Your task to perform on an android device: open a new tab in the chrome app Image 0: 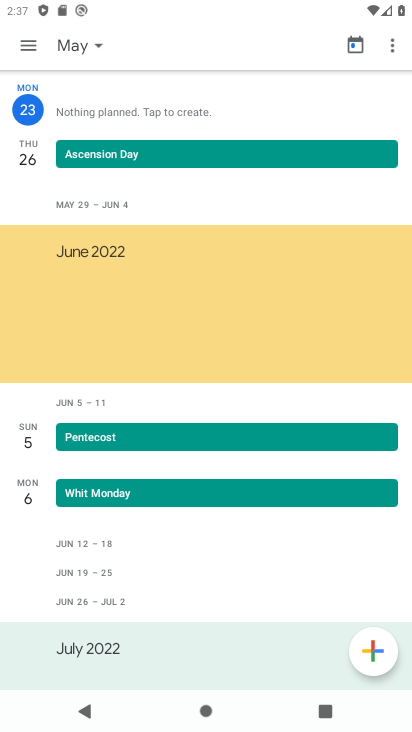
Step 0: press home button
Your task to perform on an android device: open a new tab in the chrome app Image 1: 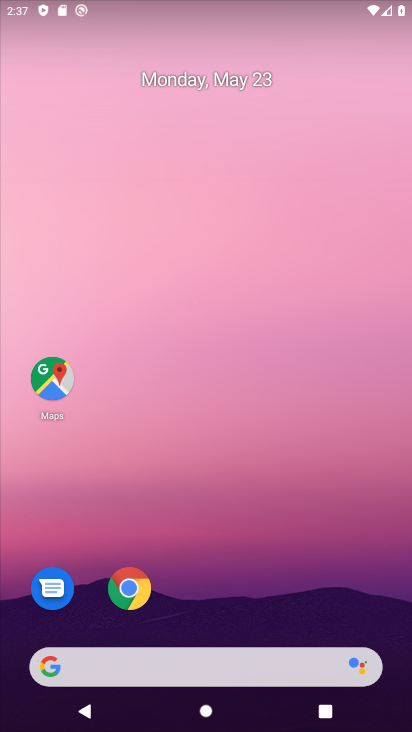
Step 1: click (132, 588)
Your task to perform on an android device: open a new tab in the chrome app Image 2: 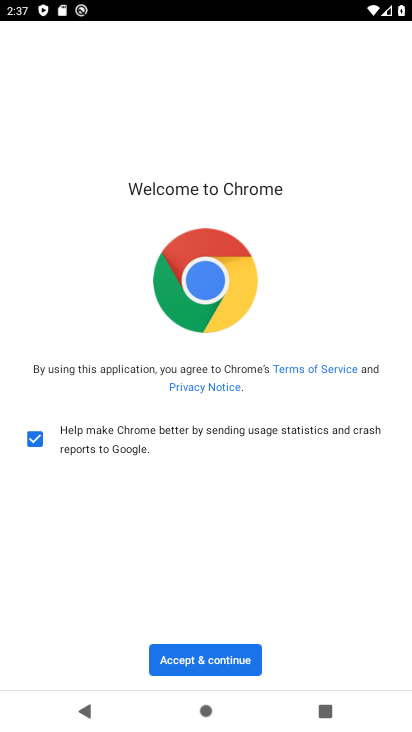
Step 2: click (199, 658)
Your task to perform on an android device: open a new tab in the chrome app Image 3: 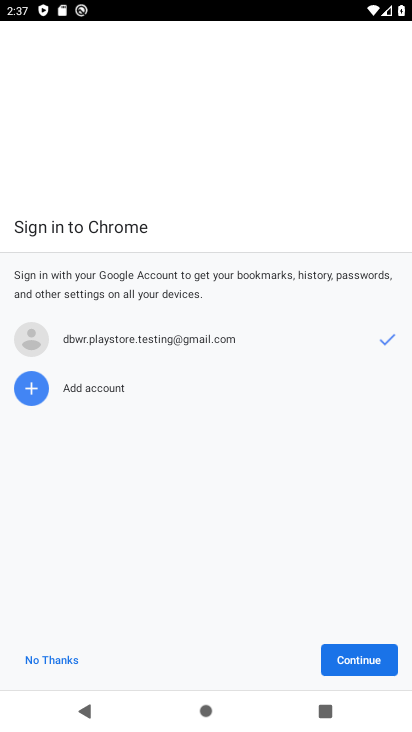
Step 3: click (363, 662)
Your task to perform on an android device: open a new tab in the chrome app Image 4: 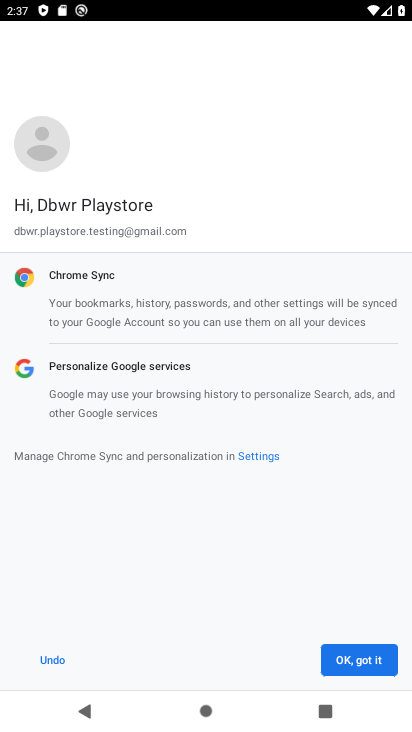
Step 4: click (363, 656)
Your task to perform on an android device: open a new tab in the chrome app Image 5: 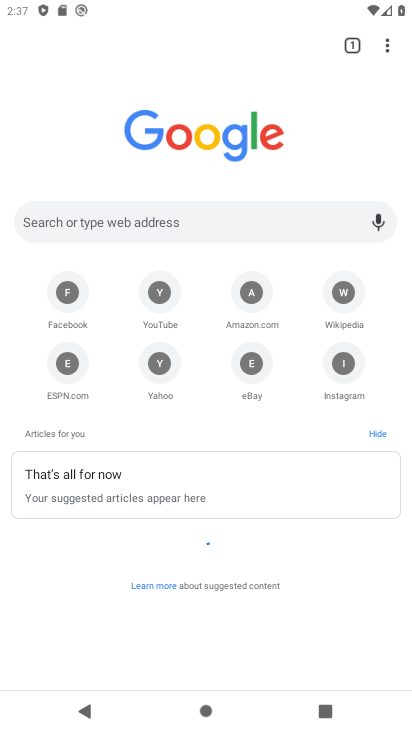
Step 5: click (386, 50)
Your task to perform on an android device: open a new tab in the chrome app Image 6: 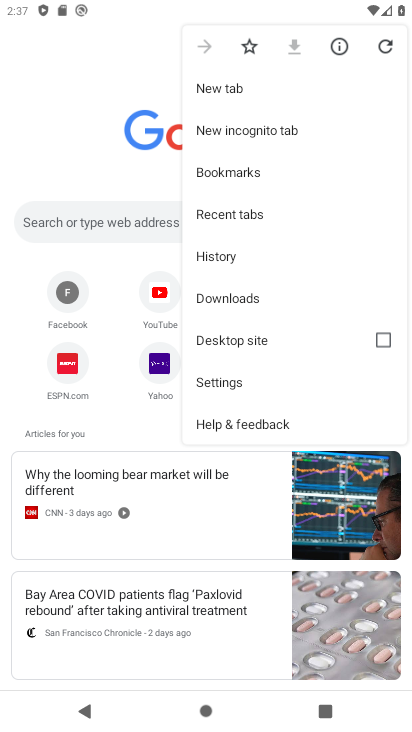
Step 6: click (221, 86)
Your task to perform on an android device: open a new tab in the chrome app Image 7: 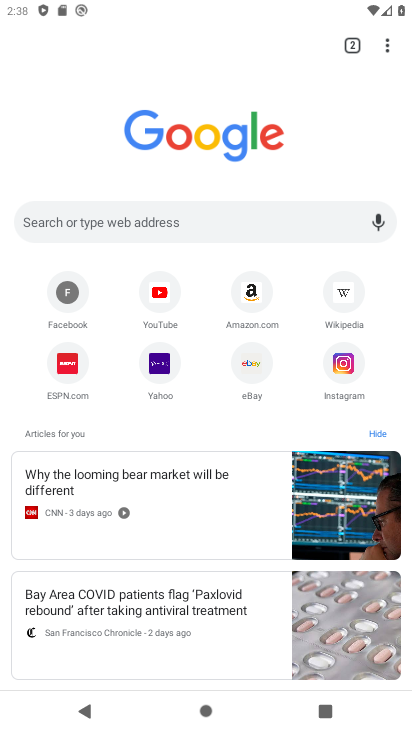
Step 7: task complete